Your task to perform on an android device: Open Amazon Image 0: 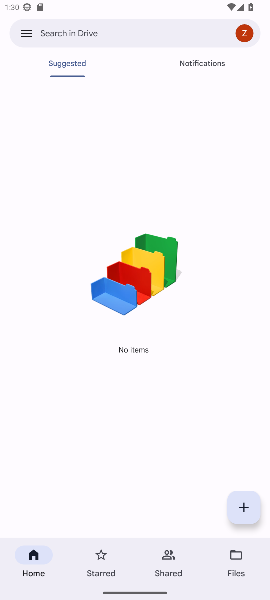
Step 0: press home button
Your task to perform on an android device: Open Amazon Image 1: 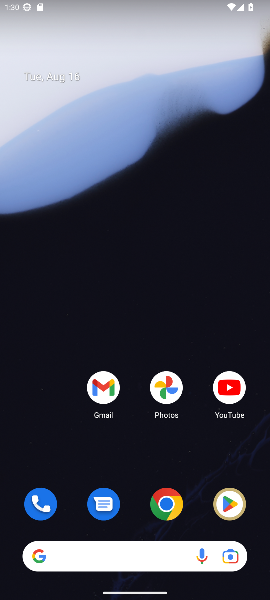
Step 1: click (165, 503)
Your task to perform on an android device: Open Amazon Image 2: 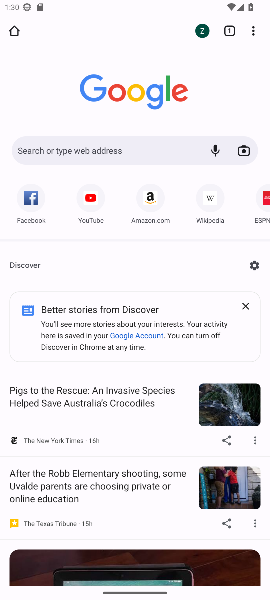
Step 2: click (151, 200)
Your task to perform on an android device: Open Amazon Image 3: 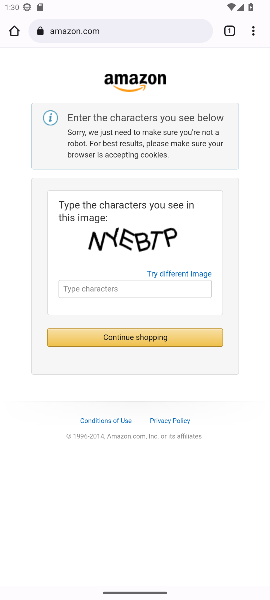
Step 3: task complete